Your task to perform on an android device: Open Reddit.com Image 0: 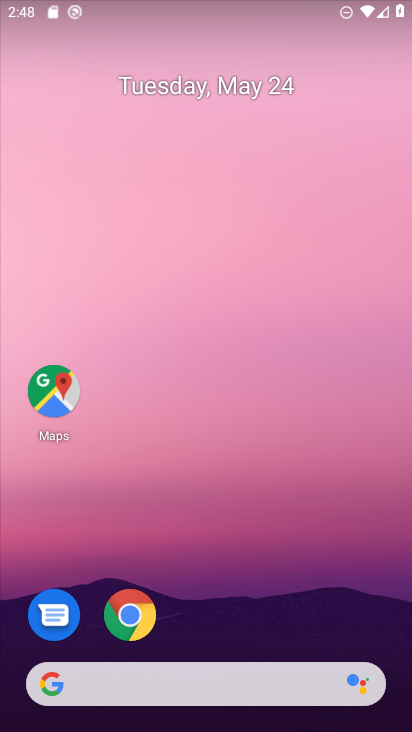
Step 0: click (142, 629)
Your task to perform on an android device: Open Reddit.com Image 1: 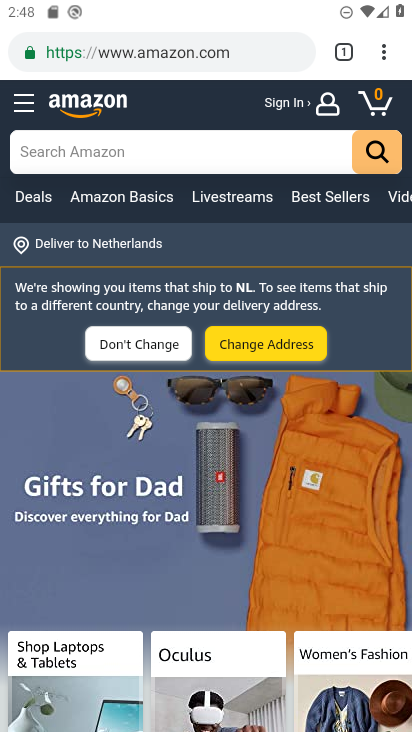
Step 1: click (251, 46)
Your task to perform on an android device: Open Reddit.com Image 2: 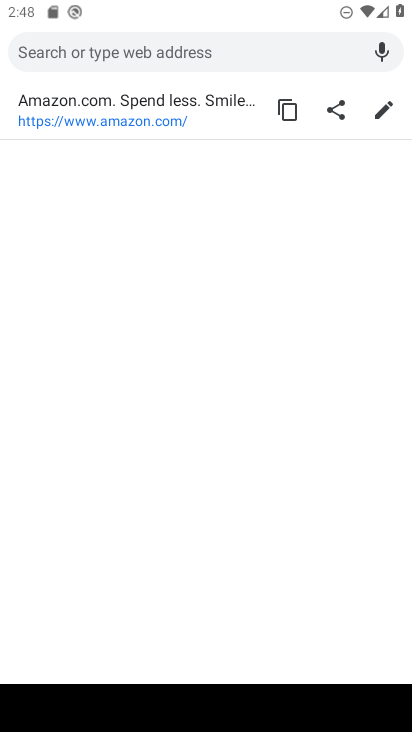
Step 2: type "reddit"
Your task to perform on an android device: Open Reddit.com Image 3: 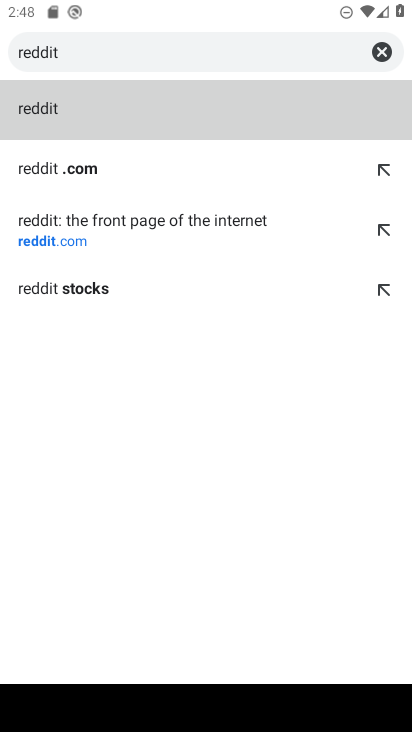
Step 3: click (112, 231)
Your task to perform on an android device: Open Reddit.com Image 4: 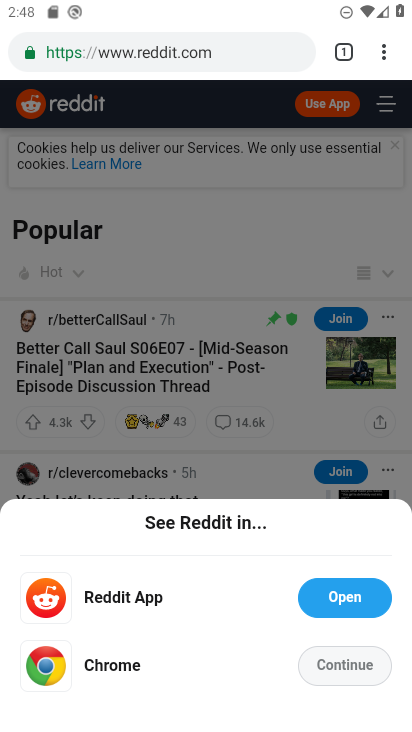
Step 4: task complete